Your task to perform on an android device: Is it going to rain this weekend? Image 0: 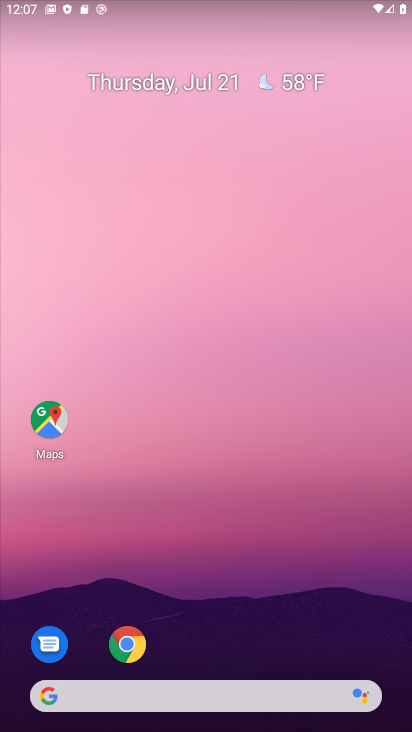
Step 0: drag from (179, 650) to (114, 181)
Your task to perform on an android device: Is it going to rain this weekend? Image 1: 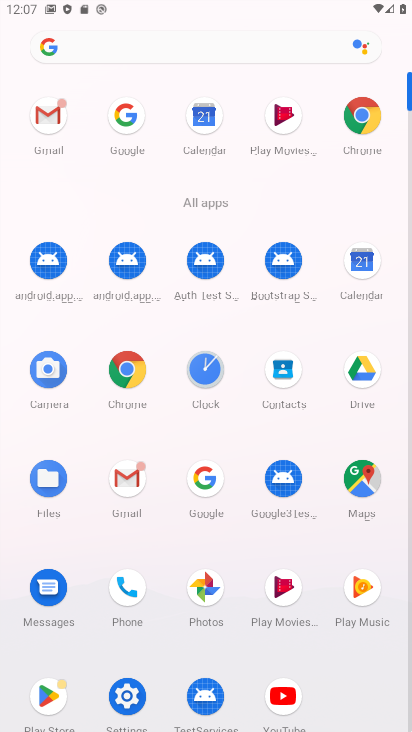
Step 1: click (369, 283)
Your task to perform on an android device: Is it going to rain this weekend? Image 2: 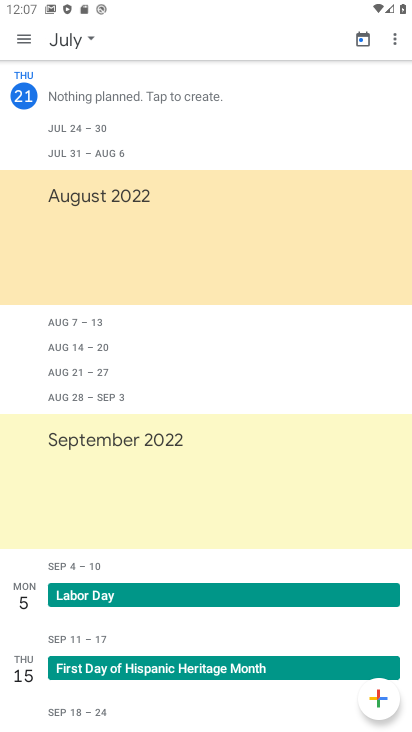
Step 2: press home button
Your task to perform on an android device: Is it going to rain this weekend? Image 3: 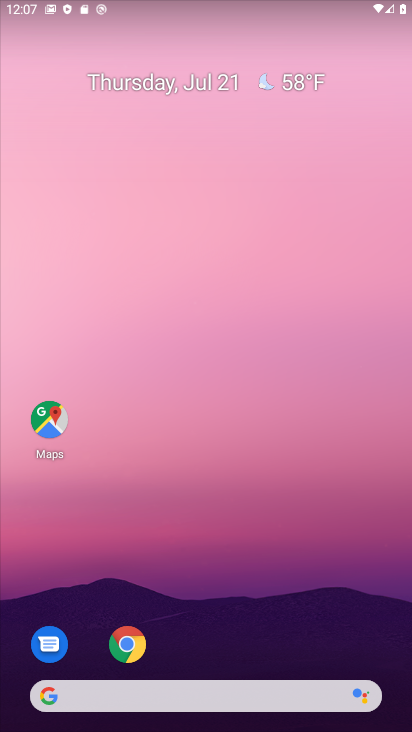
Step 3: click (211, 702)
Your task to perform on an android device: Is it going to rain this weekend? Image 4: 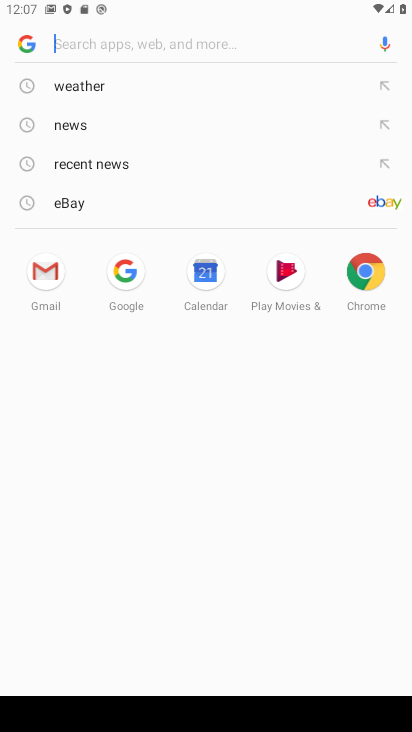
Step 4: click (64, 94)
Your task to perform on an android device: Is it going to rain this weekend? Image 5: 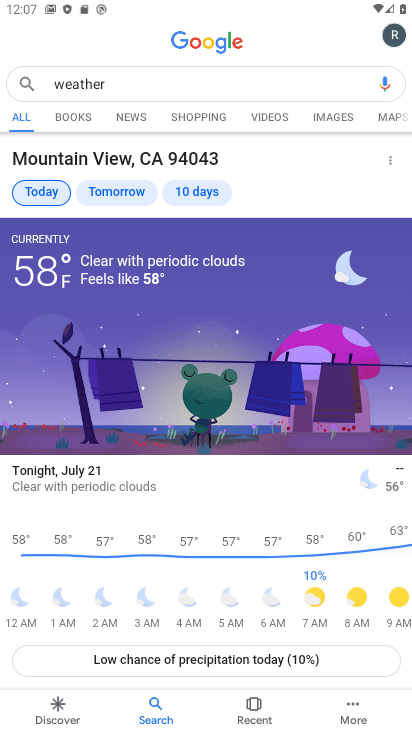
Step 5: task complete